Your task to perform on an android device: Go to sound settings Image 0: 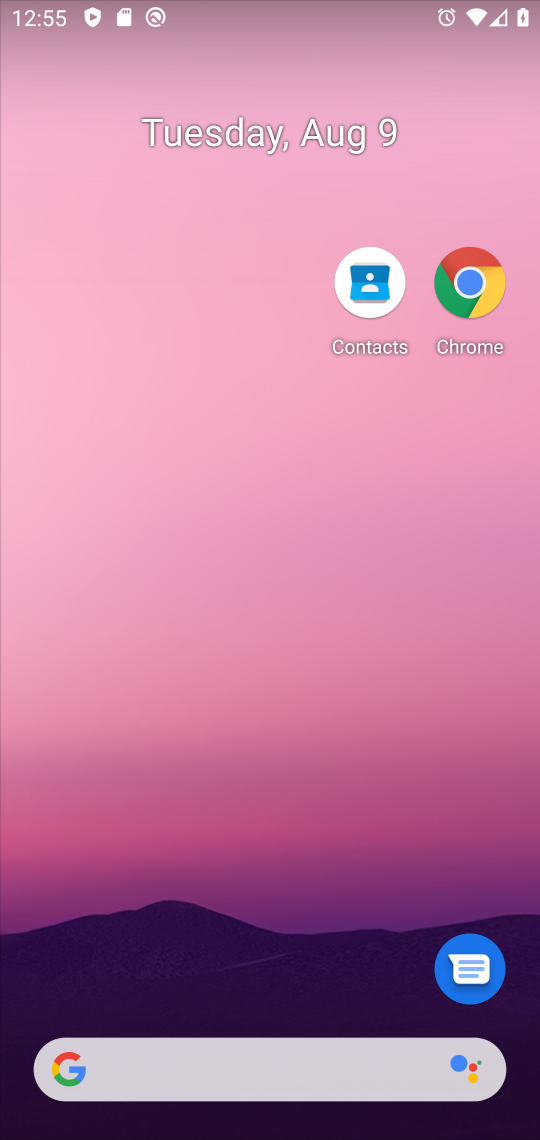
Step 0: drag from (271, 888) to (331, 381)
Your task to perform on an android device: Go to sound settings Image 1: 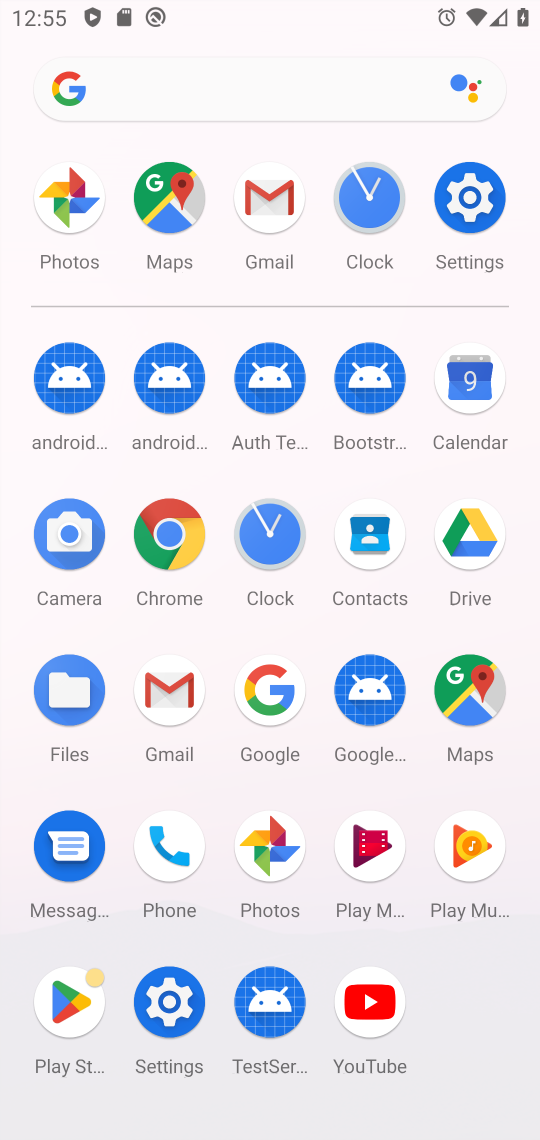
Step 1: drag from (290, 789) to (294, 254)
Your task to perform on an android device: Go to sound settings Image 2: 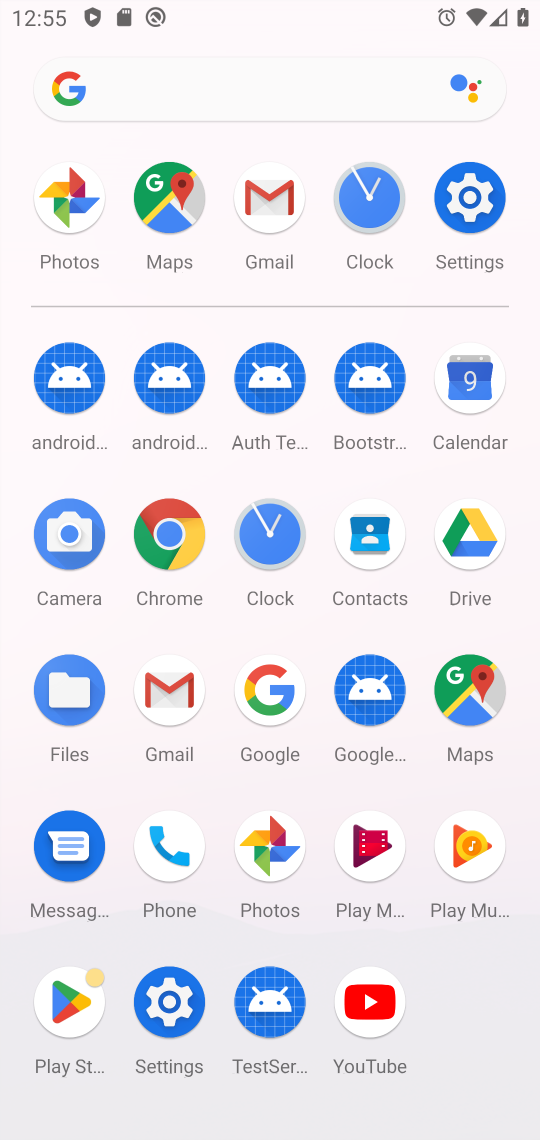
Step 2: click (168, 993)
Your task to perform on an android device: Go to sound settings Image 3: 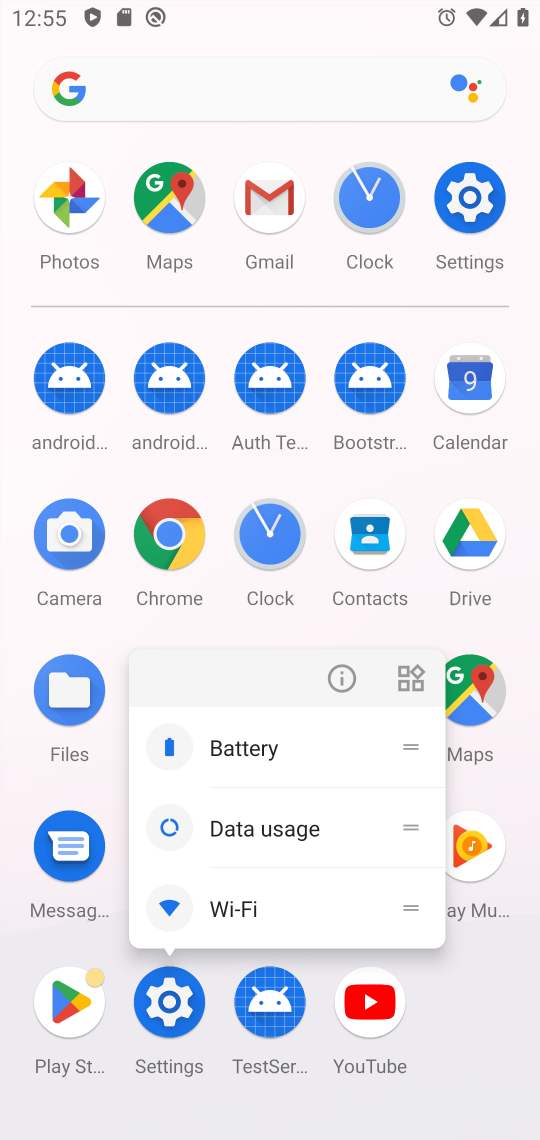
Step 3: click (298, 666)
Your task to perform on an android device: Go to sound settings Image 4: 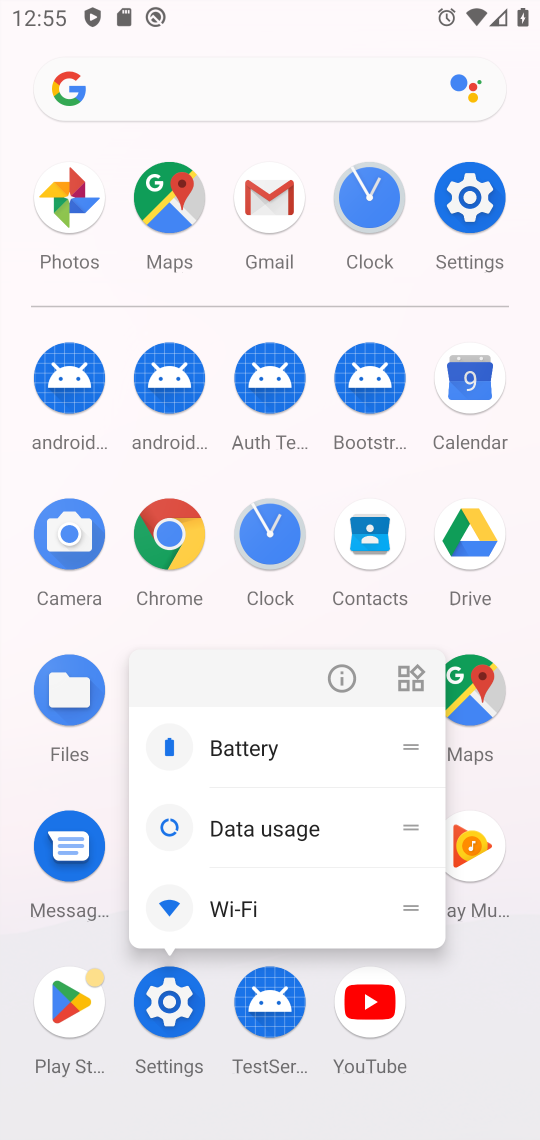
Step 4: click (343, 670)
Your task to perform on an android device: Go to sound settings Image 5: 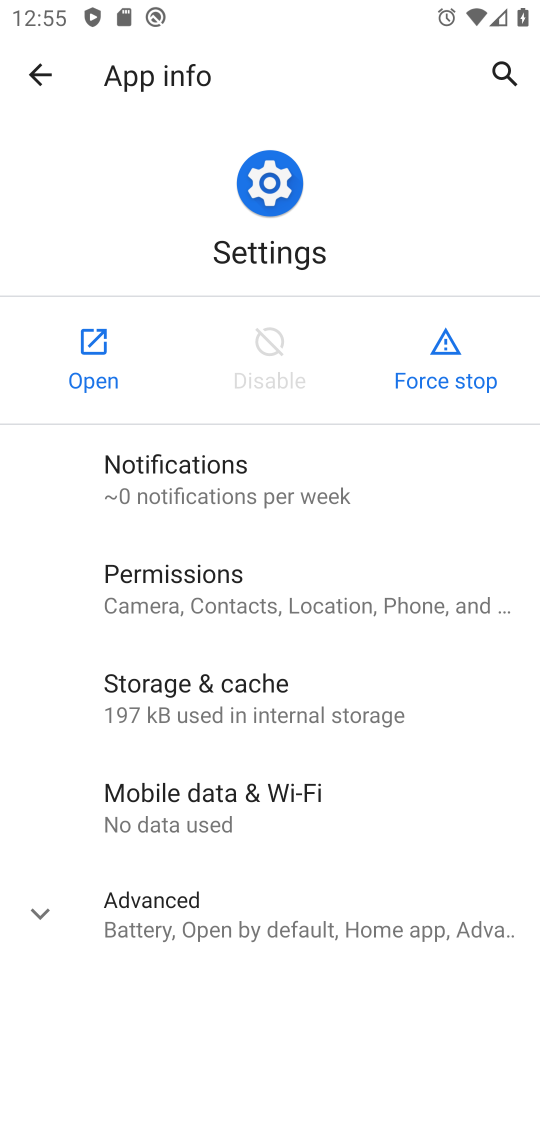
Step 5: click (106, 367)
Your task to perform on an android device: Go to sound settings Image 6: 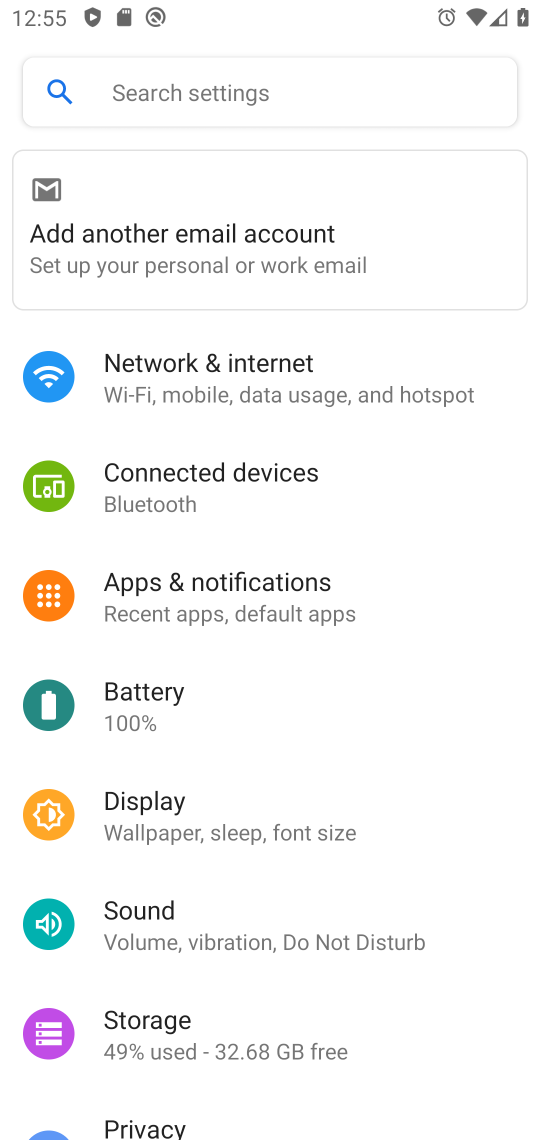
Step 6: click (257, 911)
Your task to perform on an android device: Go to sound settings Image 7: 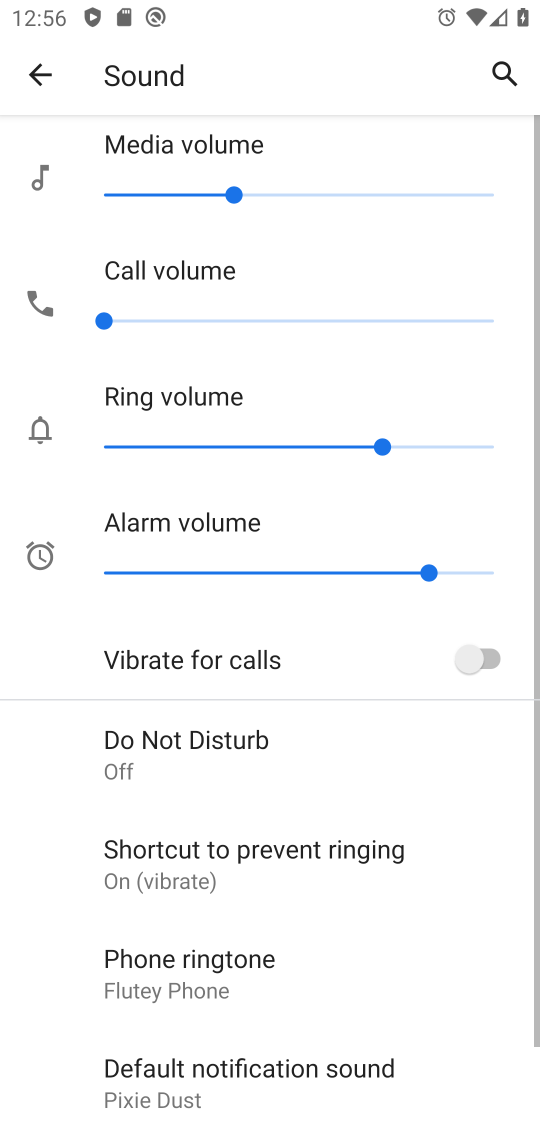
Step 7: task complete